Your task to perform on an android device: Open Youtube and go to "Your channel" Image 0: 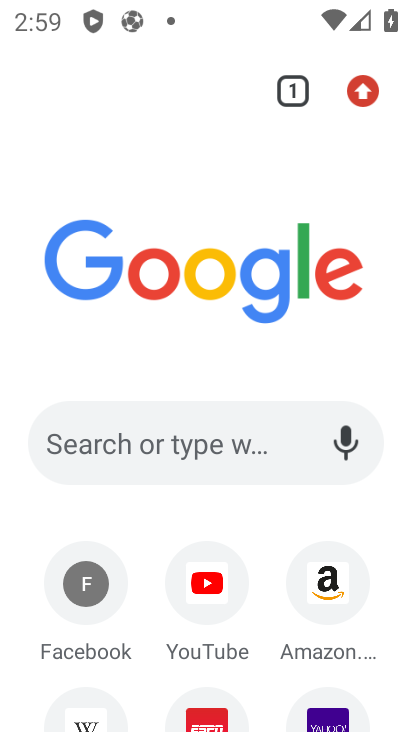
Step 0: press home button
Your task to perform on an android device: Open Youtube and go to "Your channel" Image 1: 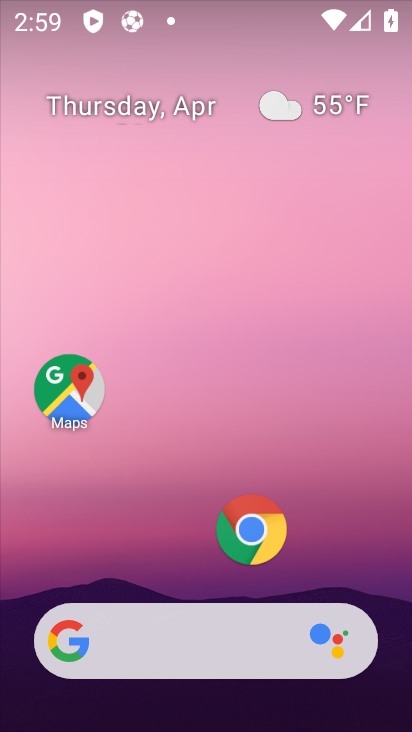
Step 1: drag from (262, 561) to (307, 46)
Your task to perform on an android device: Open Youtube and go to "Your channel" Image 2: 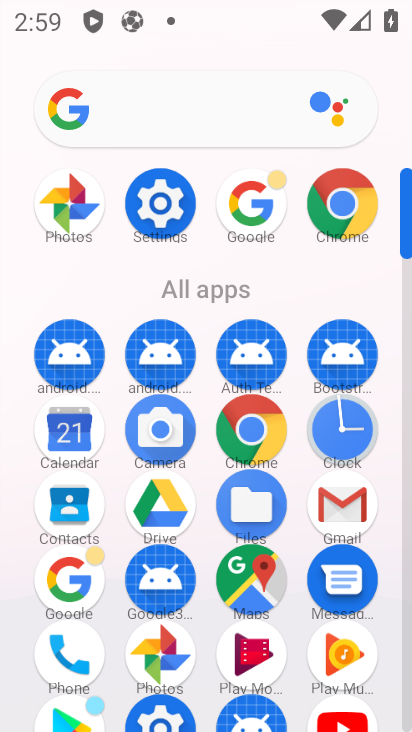
Step 2: click (346, 729)
Your task to perform on an android device: Open Youtube and go to "Your channel" Image 3: 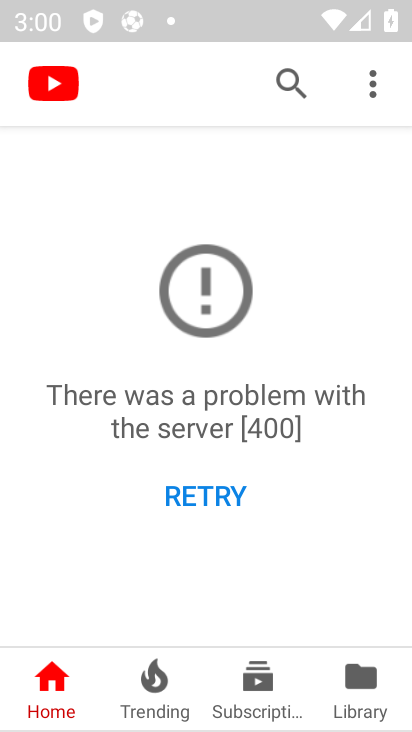
Step 3: click (360, 698)
Your task to perform on an android device: Open Youtube and go to "Your channel" Image 4: 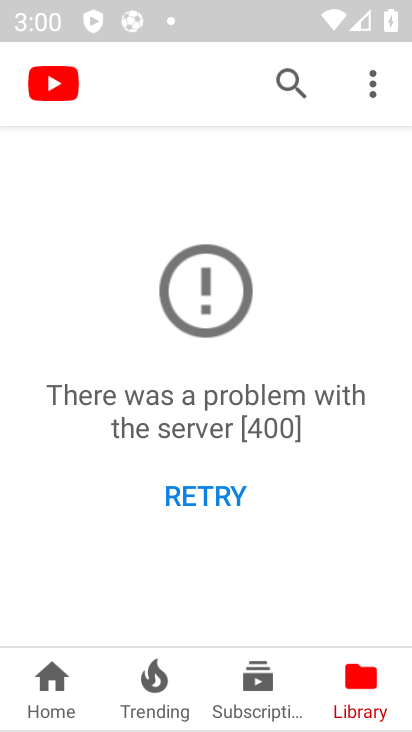
Step 4: click (362, 691)
Your task to perform on an android device: Open Youtube and go to "Your channel" Image 5: 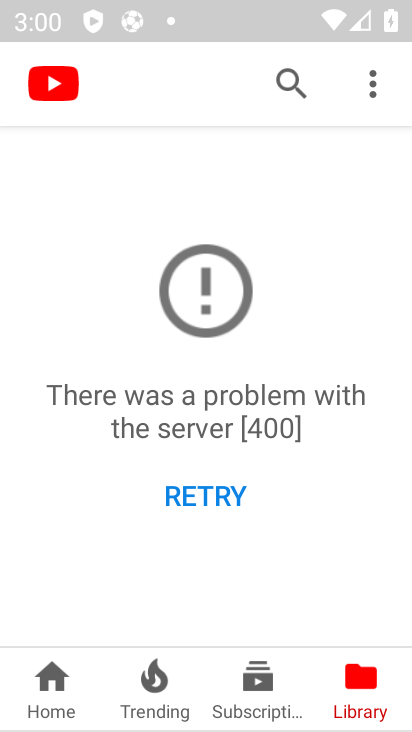
Step 5: task complete